Your task to perform on an android device: Open my contact list Image 0: 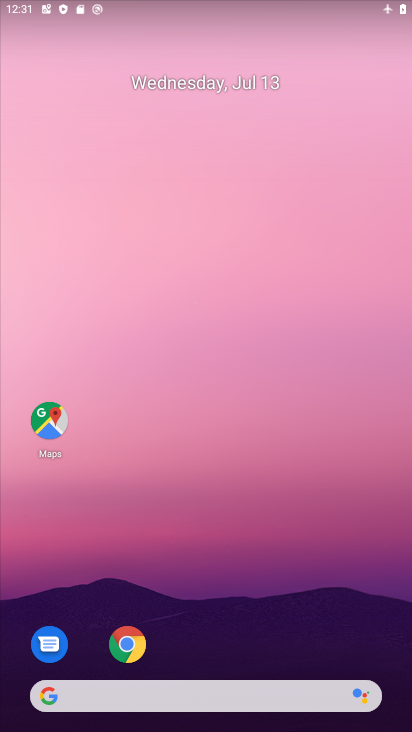
Step 0: drag from (309, 617) to (259, 108)
Your task to perform on an android device: Open my contact list Image 1: 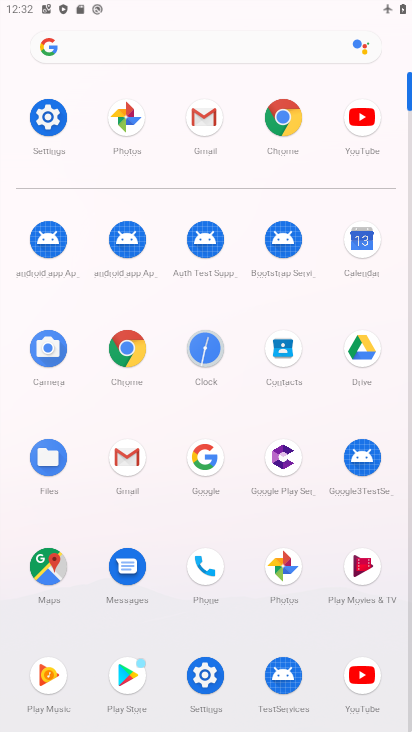
Step 1: click (281, 348)
Your task to perform on an android device: Open my contact list Image 2: 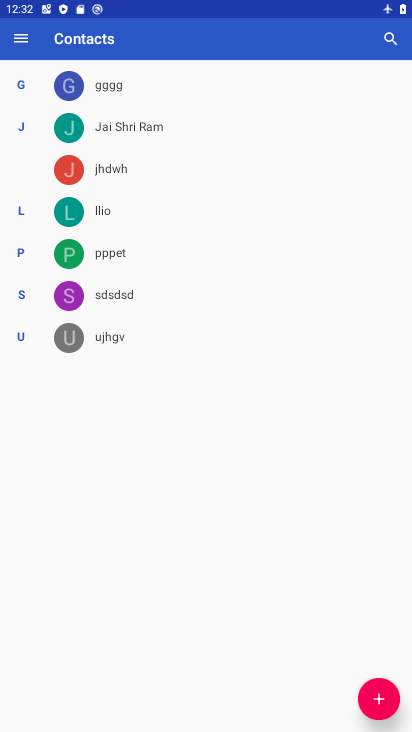
Step 2: task complete